Your task to perform on an android device: open app "Truecaller" (install if not already installed) Image 0: 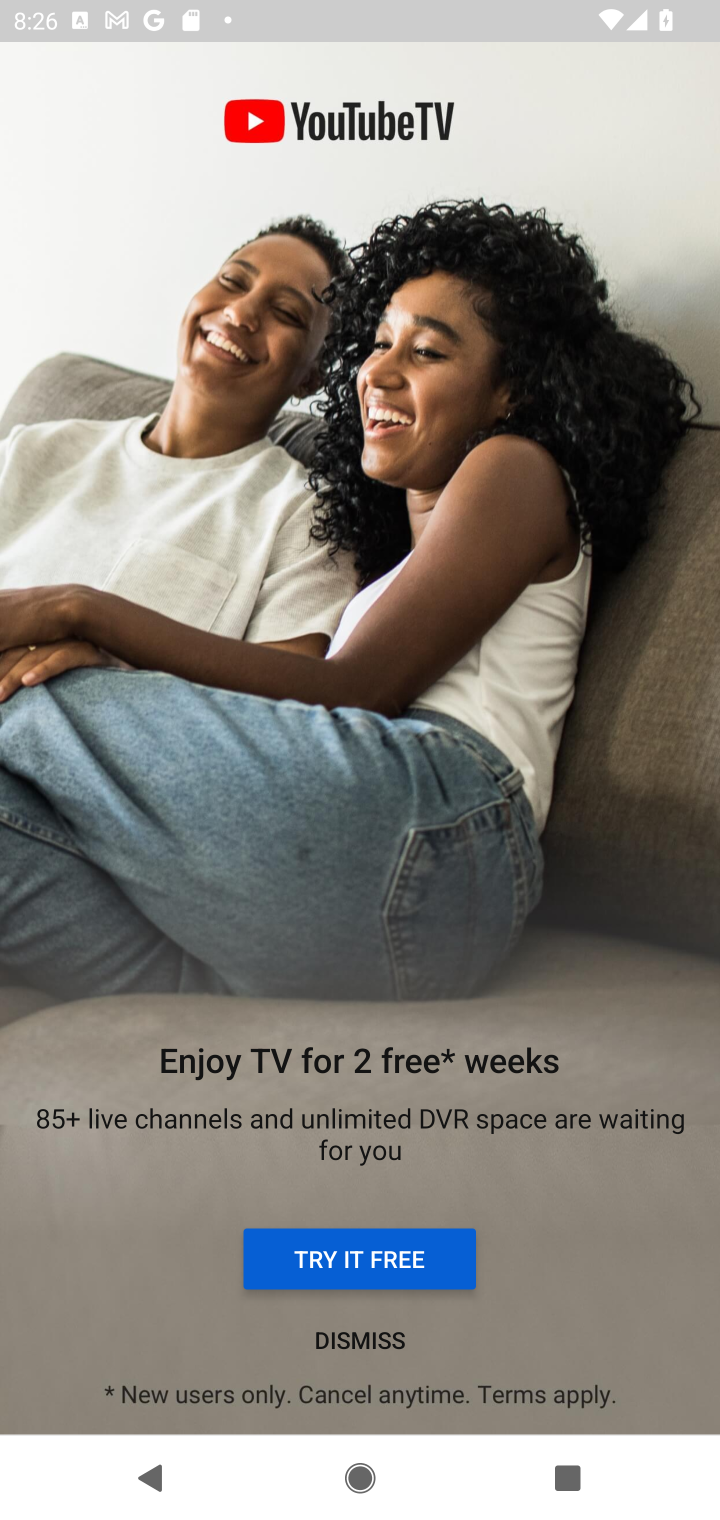
Step 0: press home button
Your task to perform on an android device: open app "Truecaller" (install if not already installed) Image 1: 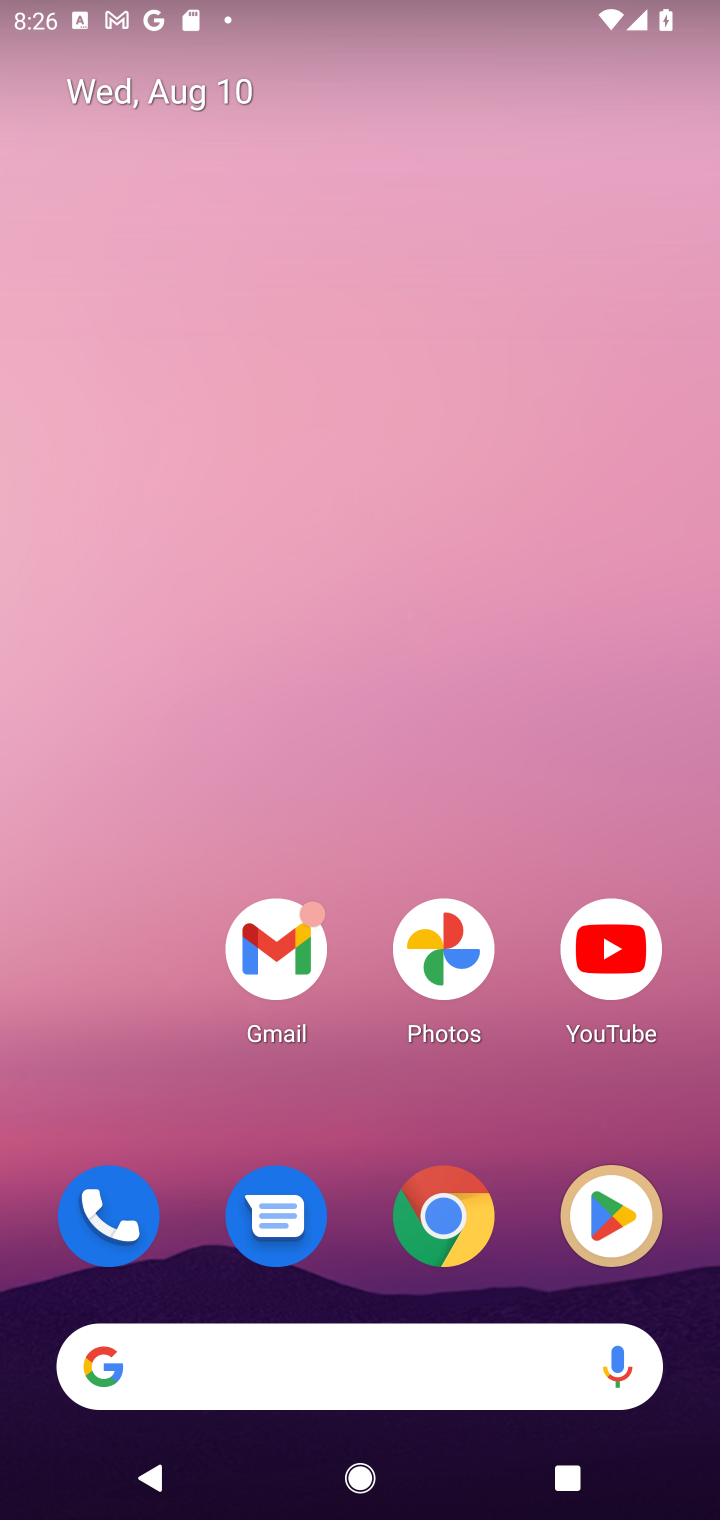
Step 1: click (596, 1227)
Your task to perform on an android device: open app "Truecaller" (install if not already installed) Image 2: 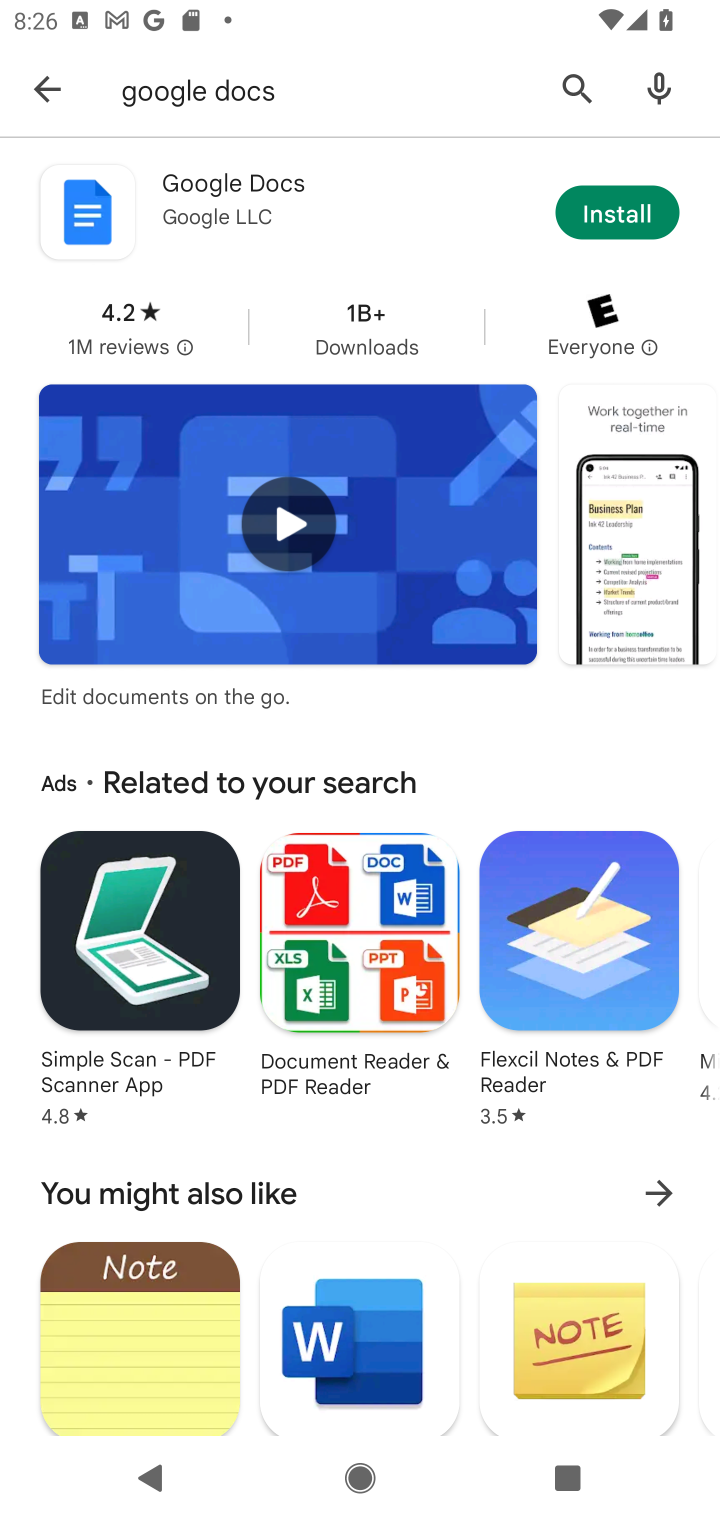
Step 2: click (576, 103)
Your task to perform on an android device: open app "Truecaller" (install if not already installed) Image 3: 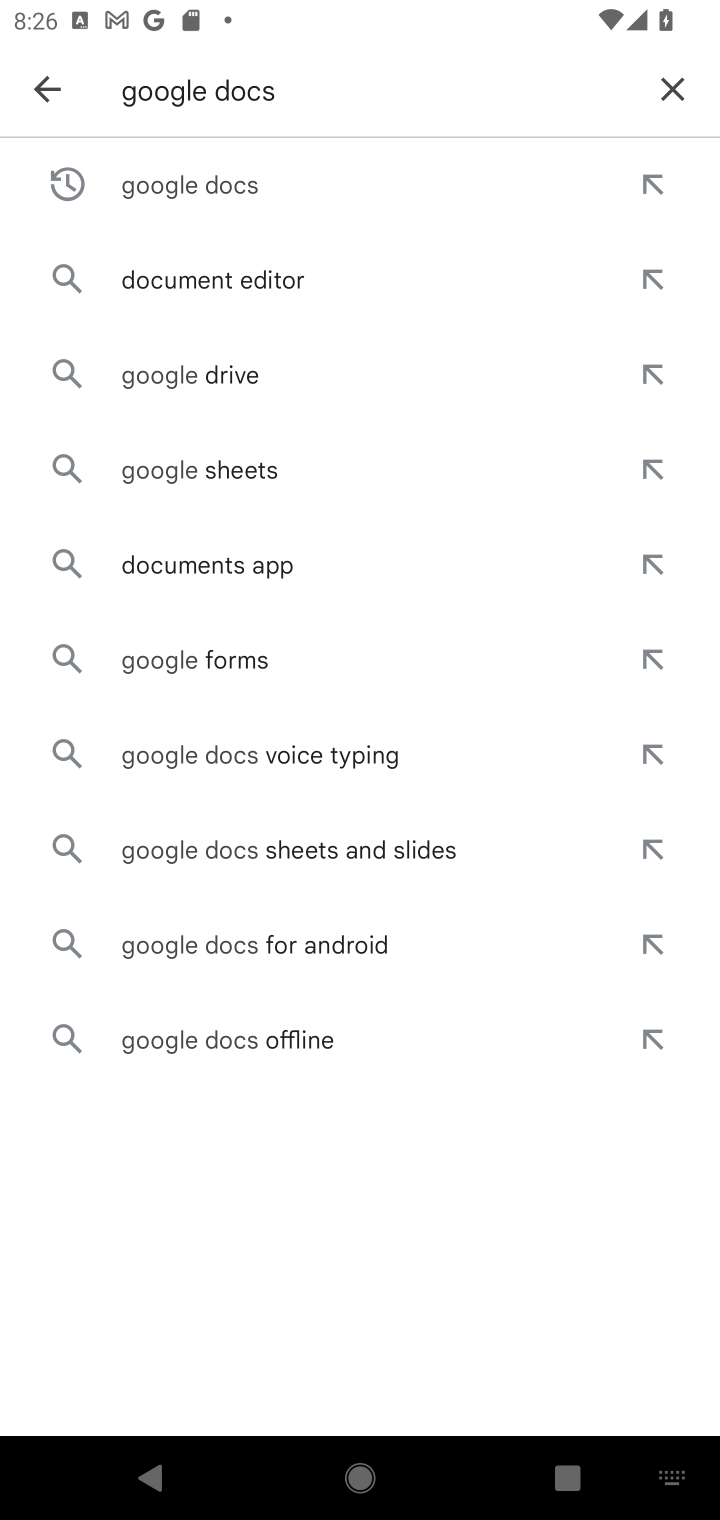
Step 3: click (666, 86)
Your task to perform on an android device: open app "Truecaller" (install if not already installed) Image 4: 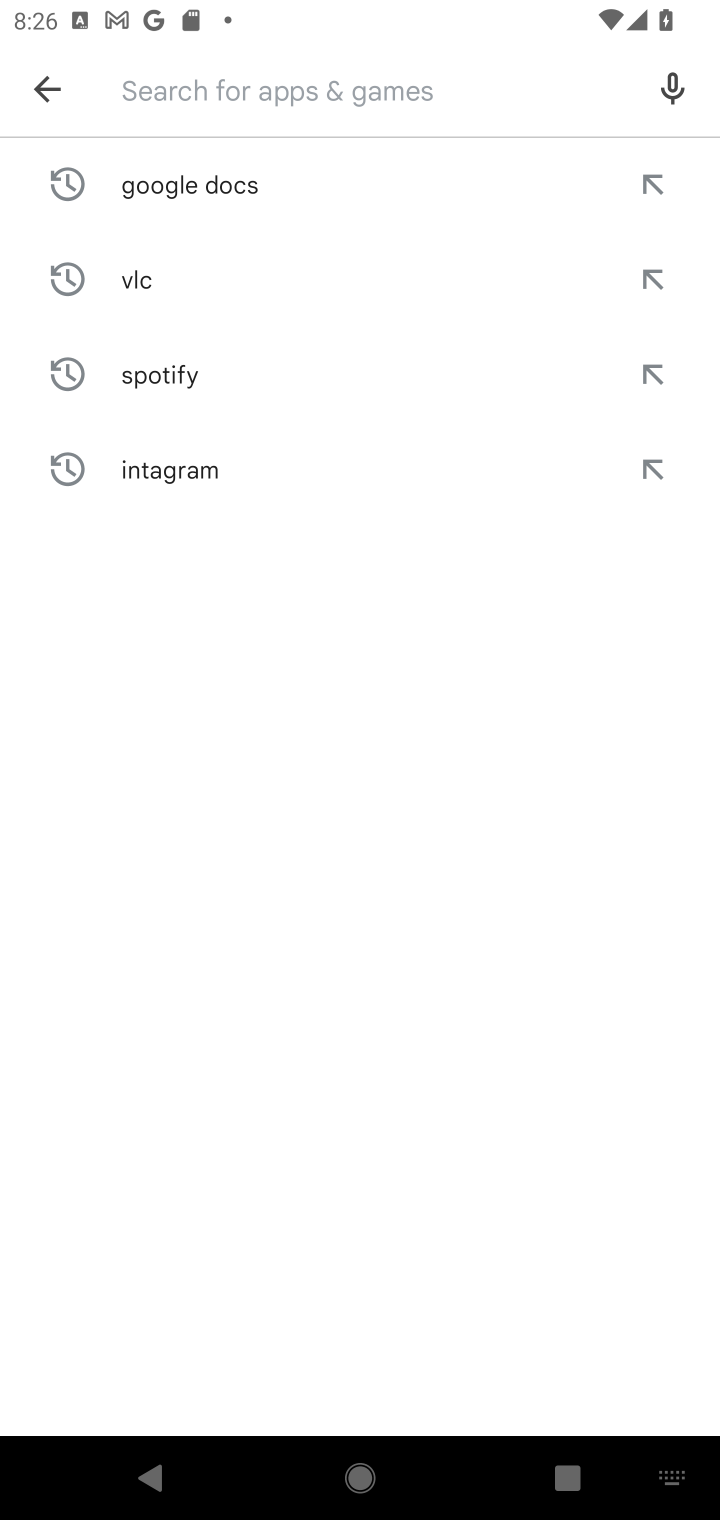
Step 4: click (193, 97)
Your task to perform on an android device: open app "Truecaller" (install if not already installed) Image 5: 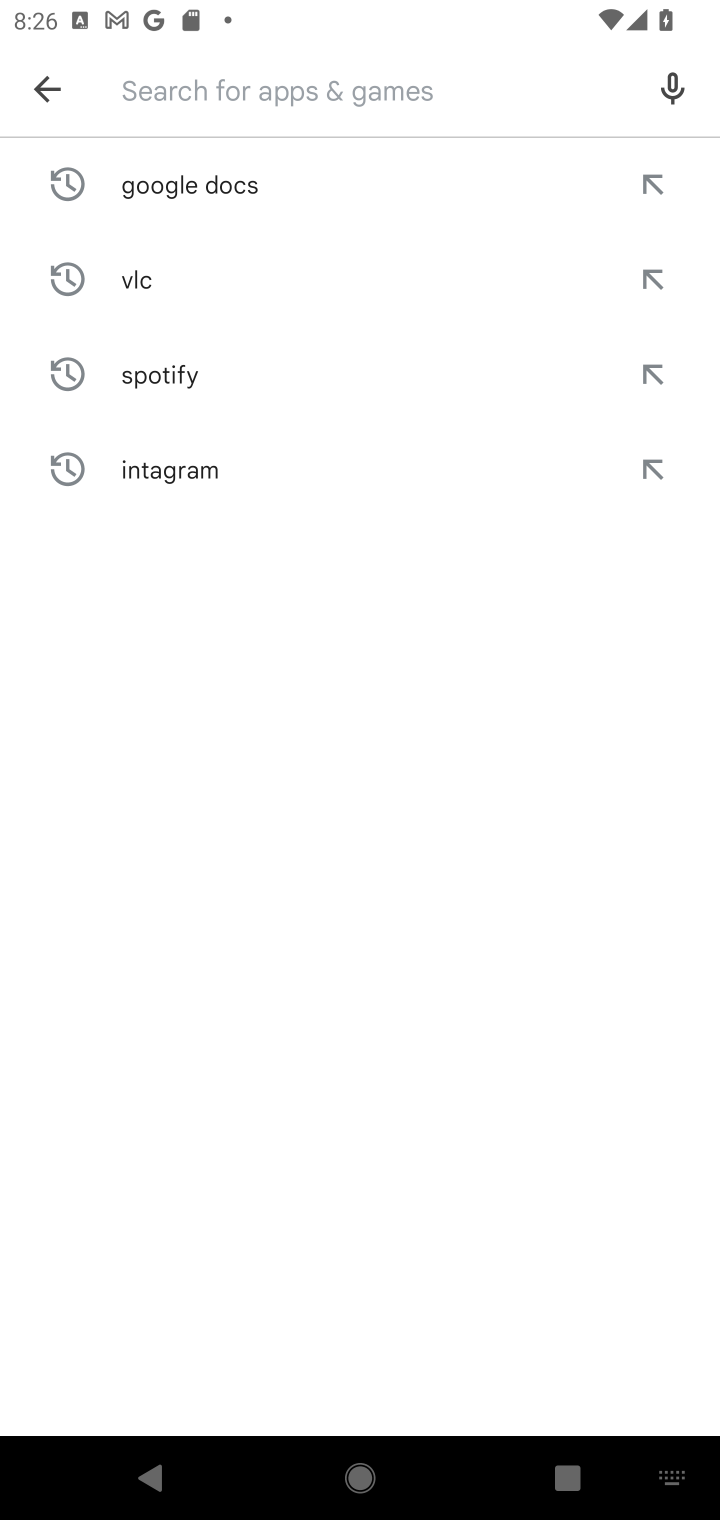
Step 5: type "truecaller"
Your task to perform on an android device: open app "Truecaller" (install if not already installed) Image 6: 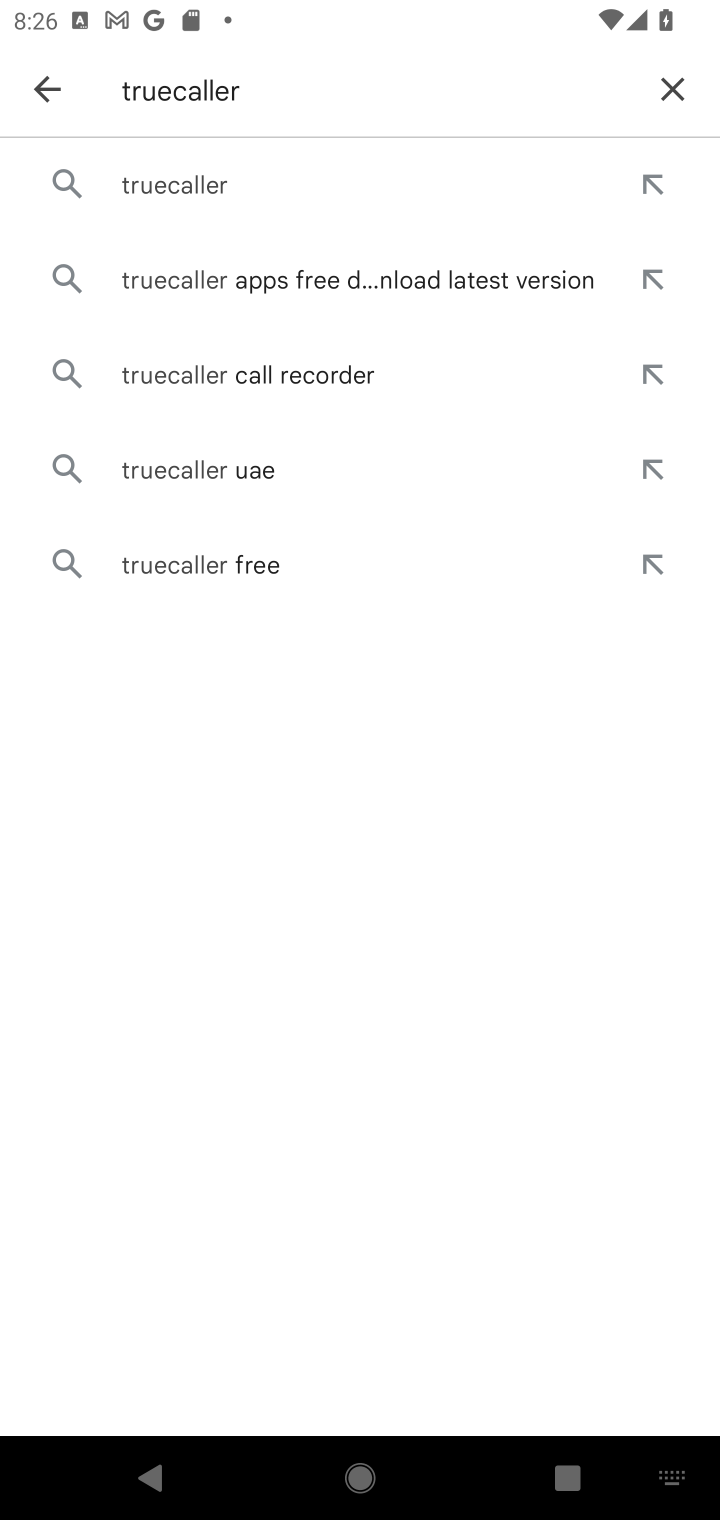
Step 6: click (190, 191)
Your task to perform on an android device: open app "Truecaller" (install if not already installed) Image 7: 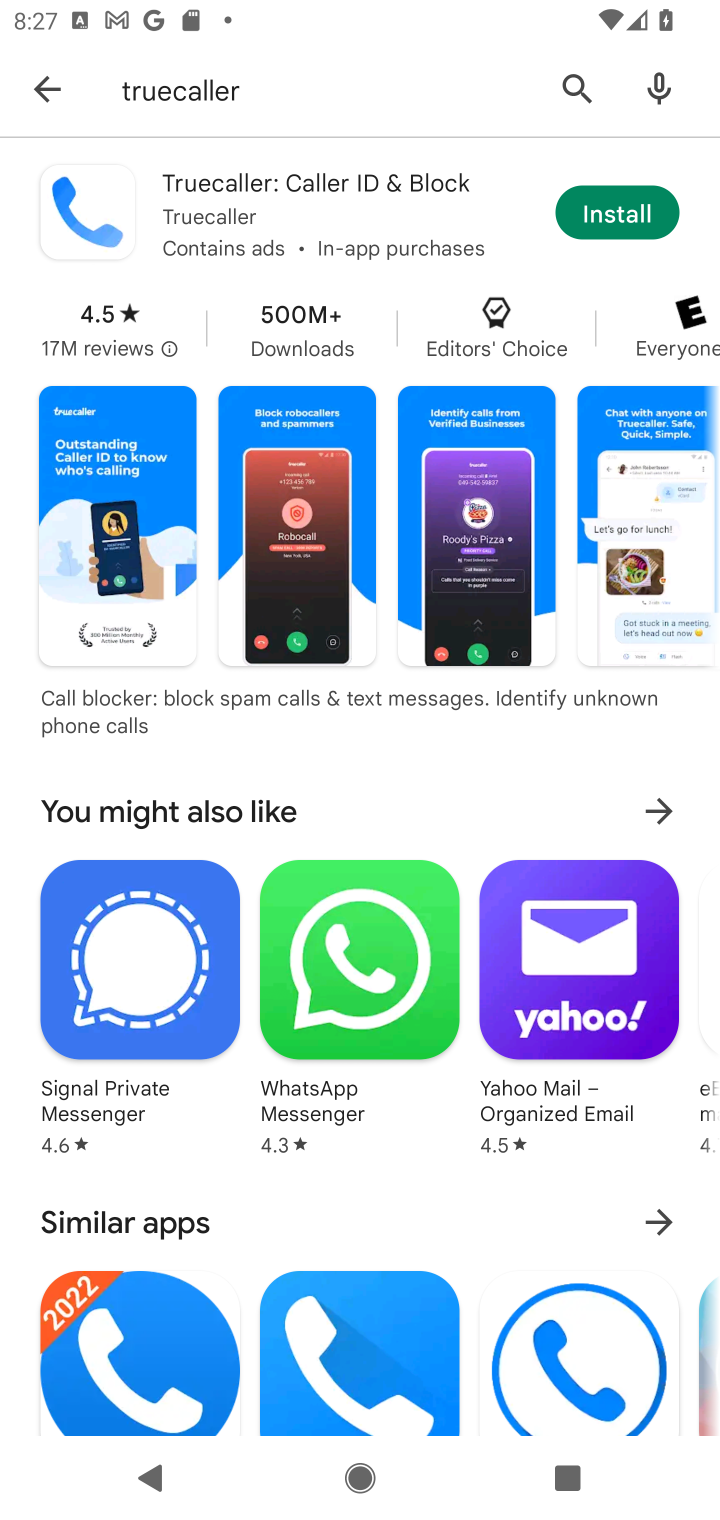
Step 7: click (593, 199)
Your task to perform on an android device: open app "Truecaller" (install if not already installed) Image 8: 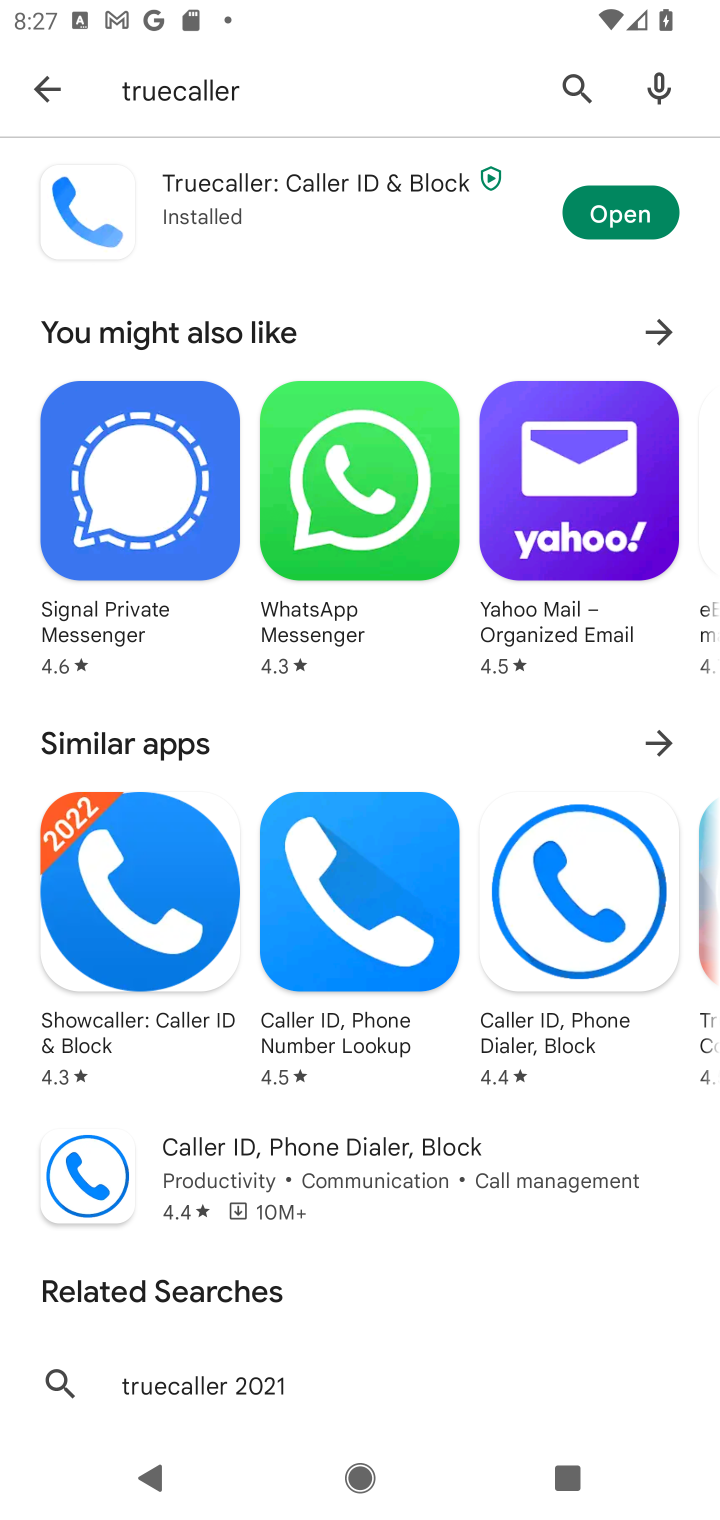
Step 8: click (612, 212)
Your task to perform on an android device: open app "Truecaller" (install if not already installed) Image 9: 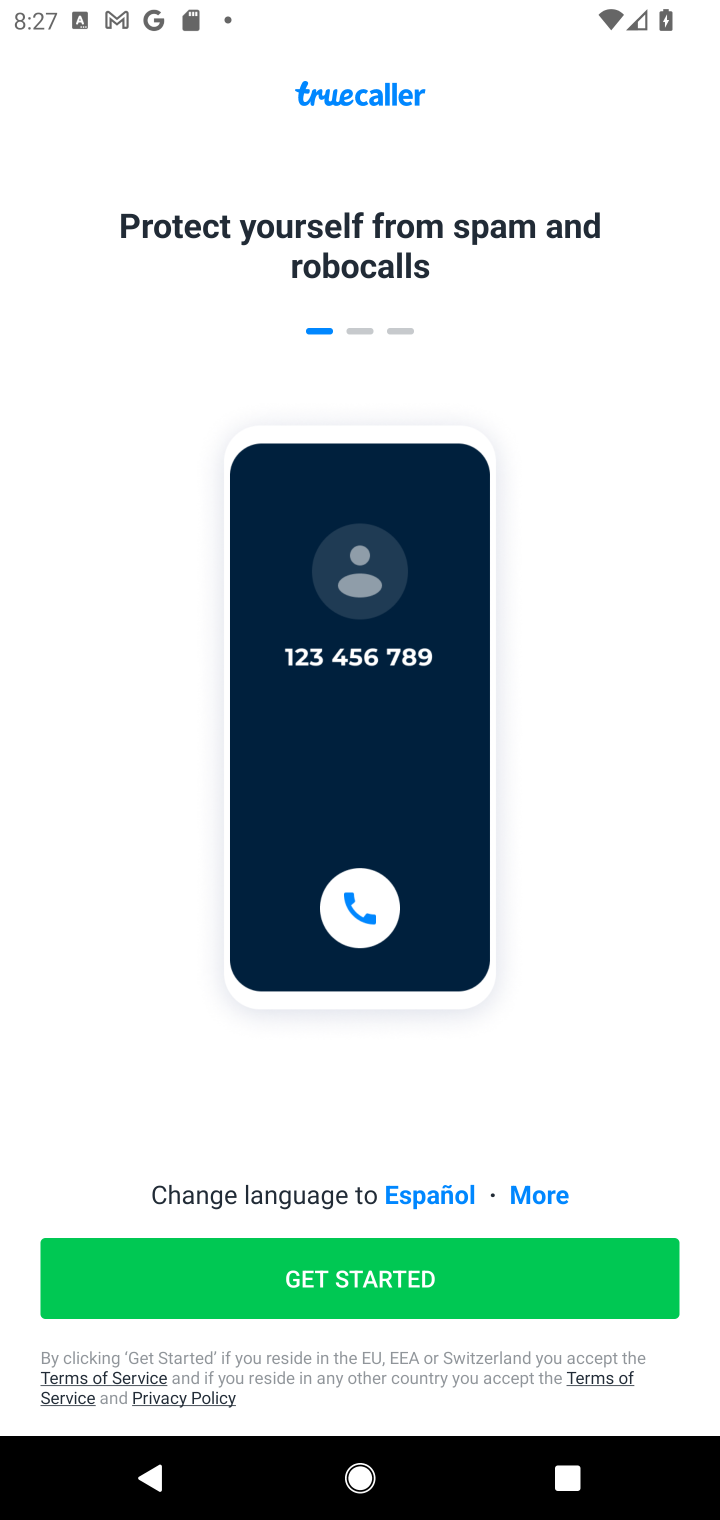
Step 9: click (409, 1295)
Your task to perform on an android device: open app "Truecaller" (install if not already installed) Image 10: 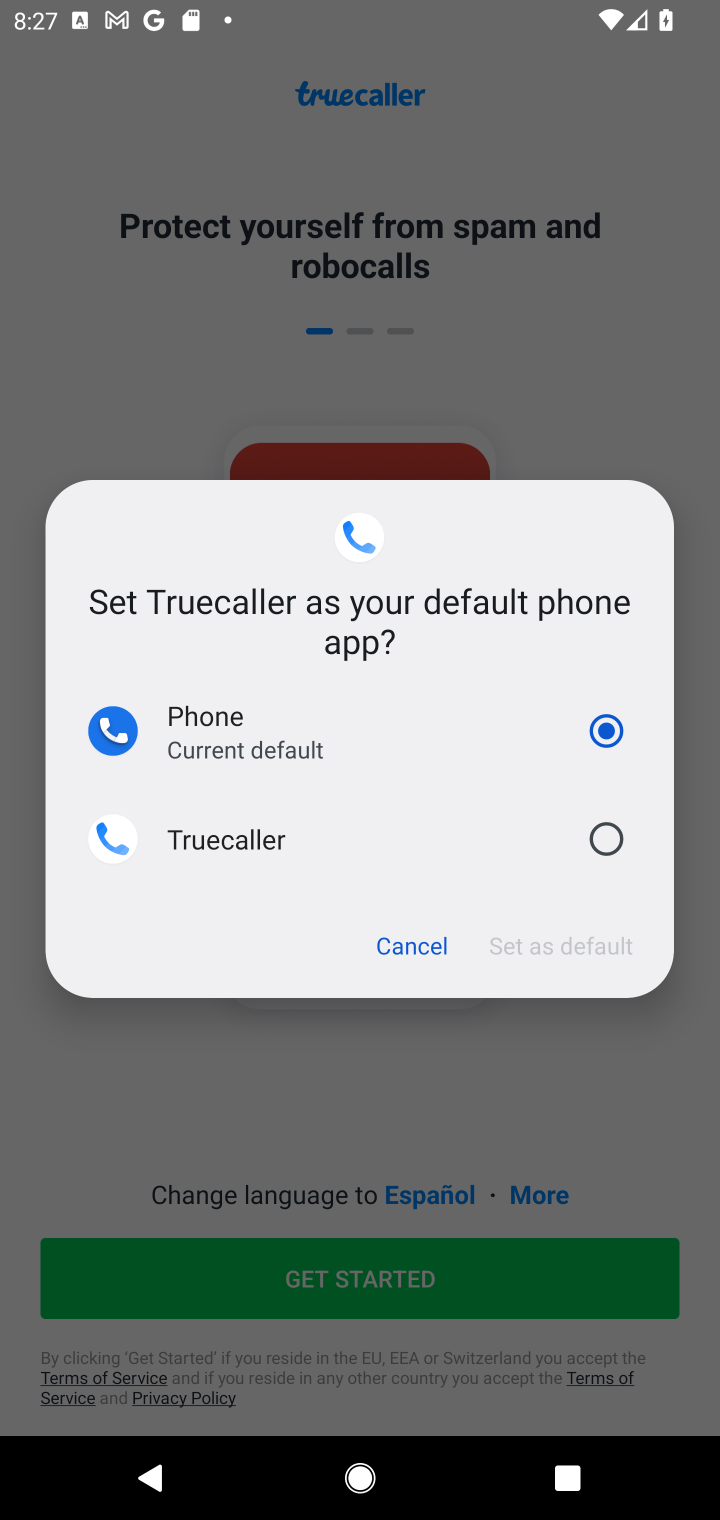
Step 10: task complete